Your task to perform on an android device: Open calendar and show me the first week of next month Image 0: 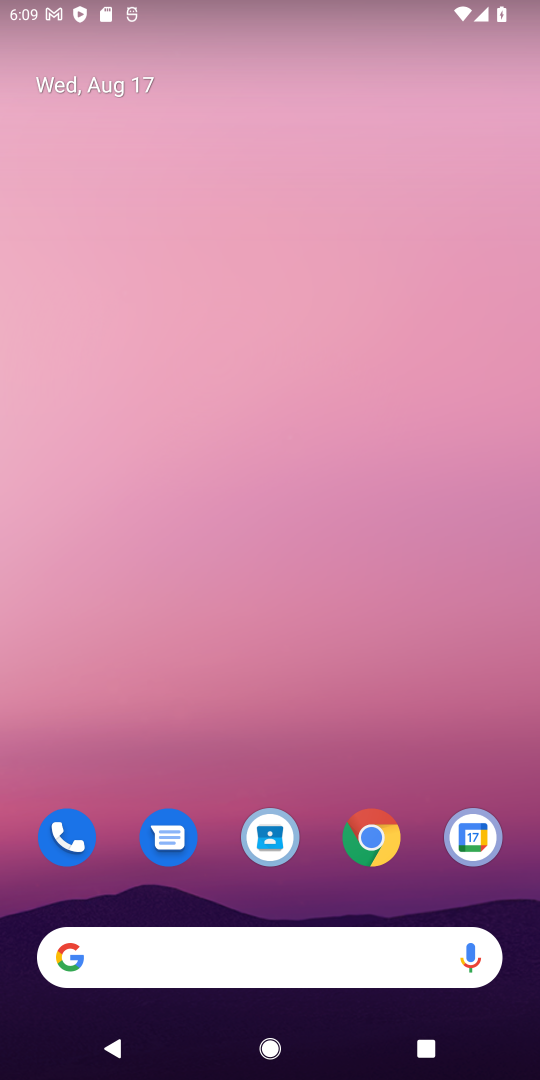
Step 0: drag from (248, 869) to (383, 4)
Your task to perform on an android device: Open calendar and show me the first week of next month Image 1: 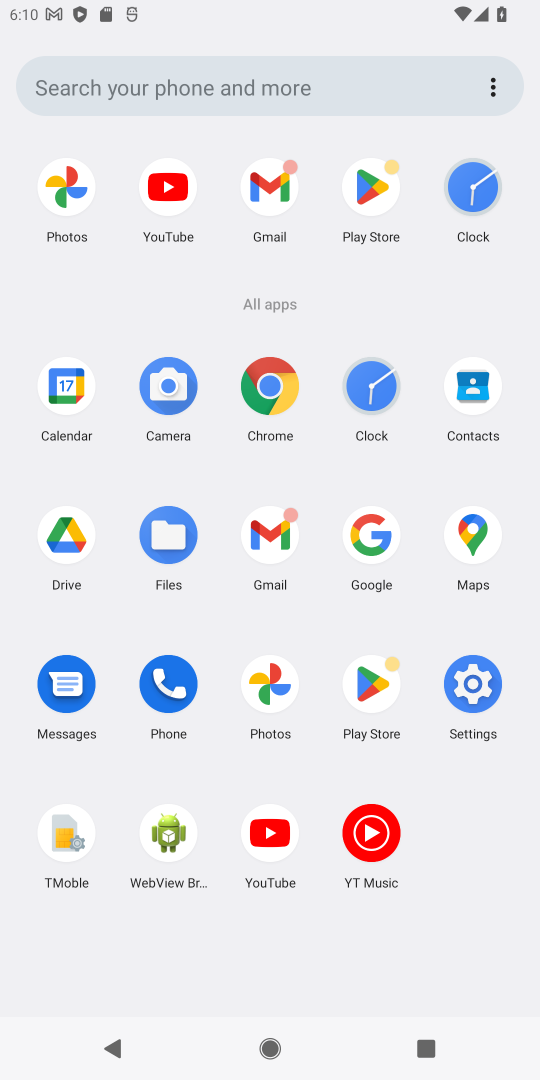
Step 1: click (65, 411)
Your task to perform on an android device: Open calendar and show me the first week of next month Image 2: 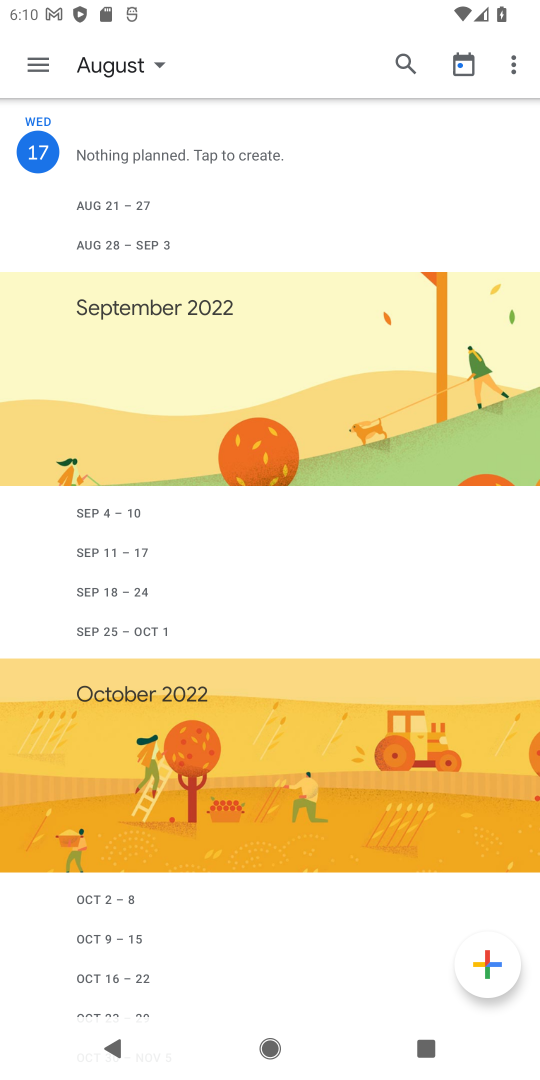
Step 2: click (141, 64)
Your task to perform on an android device: Open calendar and show me the first week of next month Image 3: 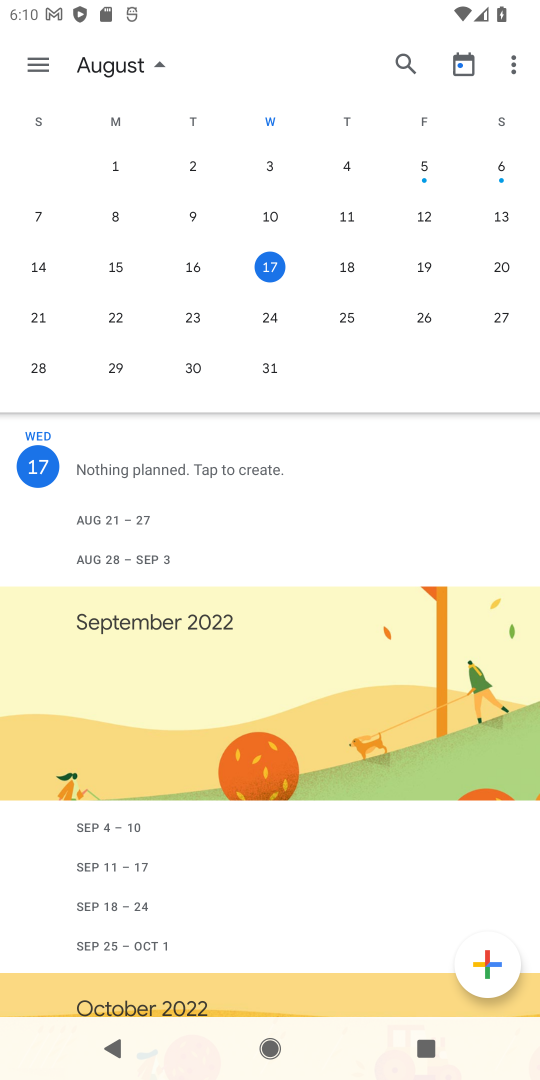
Step 3: drag from (510, 266) to (63, 287)
Your task to perform on an android device: Open calendar and show me the first week of next month Image 4: 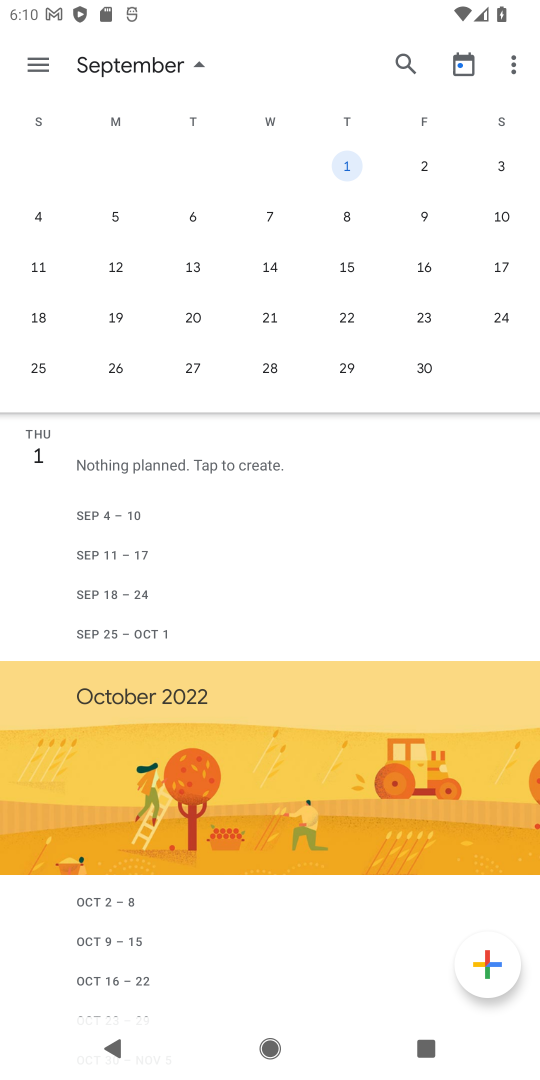
Step 4: click (344, 164)
Your task to perform on an android device: Open calendar and show me the first week of next month Image 5: 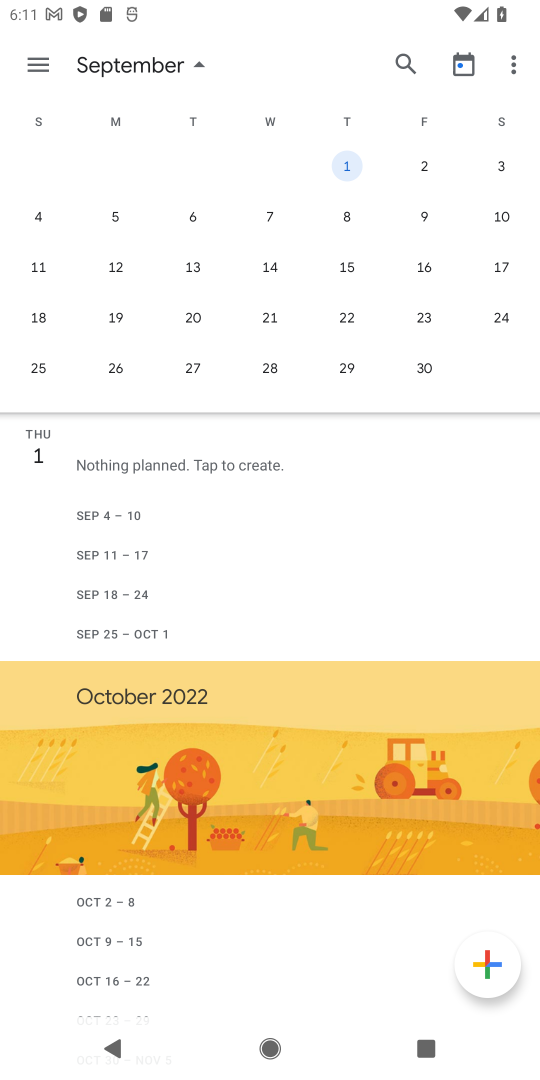
Step 5: task complete